Your task to perform on an android device: turn on showing notifications on the lock screen Image 0: 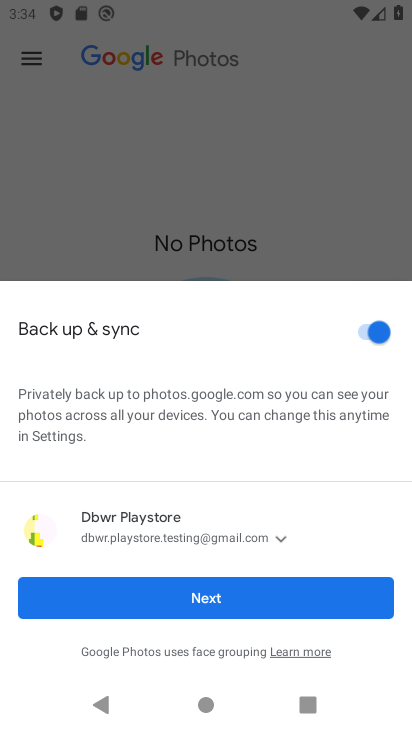
Step 0: press home button
Your task to perform on an android device: turn on showing notifications on the lock screen Image 1: 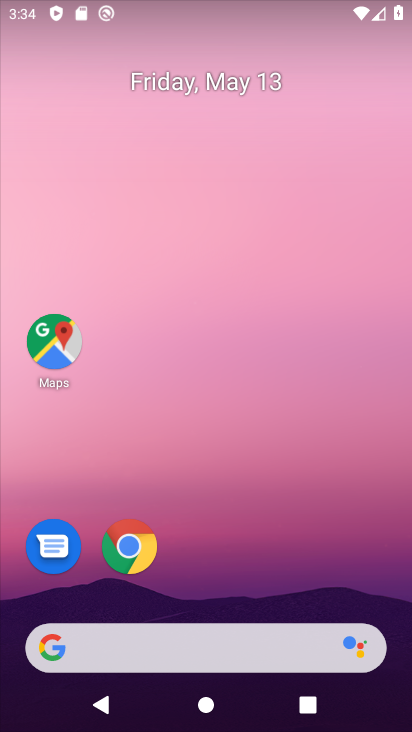
Step 1: drag from (219, 726) to (218, 85)
Your task to perform on an android device: turn on showing notifications on the lock screen Image 2: 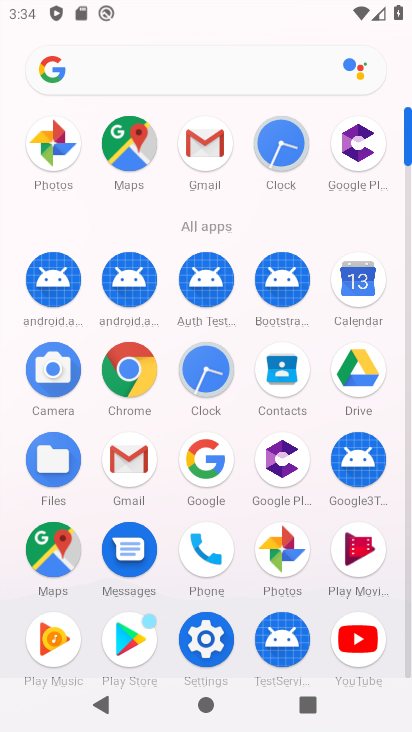
Step 2: click (209, 625)
Your task to perform on an android device: turn on showing notifications on the lock screen Image 3: 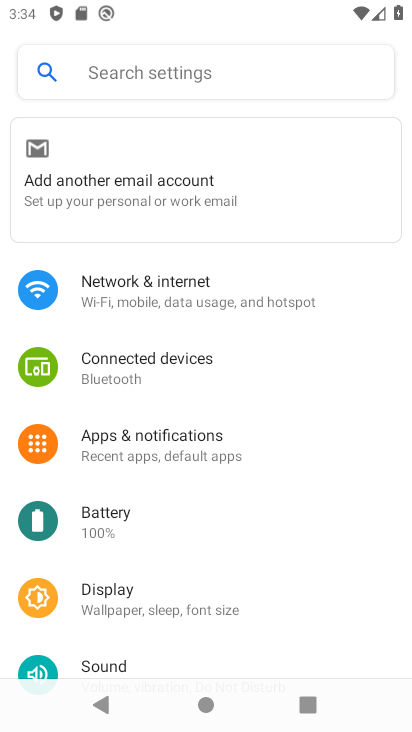
Step 3: click (136, 447)
Your task to perform on an android device: turn on showing notifications on the lock screen Image 4: 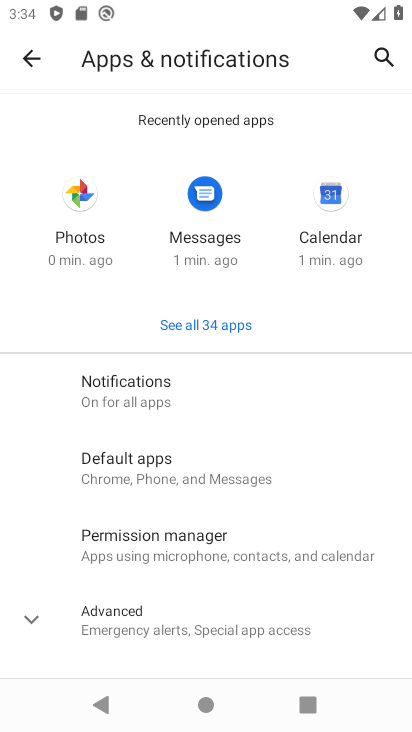
Step 4: click (125, 390)
Your task to perform on an android device: turn on showing notifications on the lock screen Image 5: 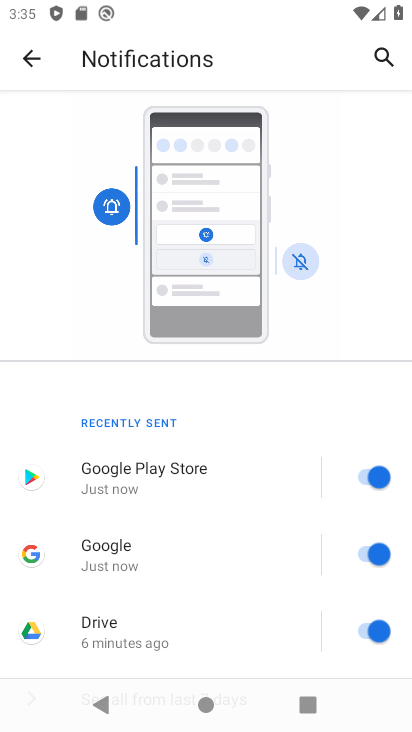
Step 5: drag from (216, 654) to (222, 300)
Your task to perform on an android device: turn on showing notifications on the lock screen Image 6: 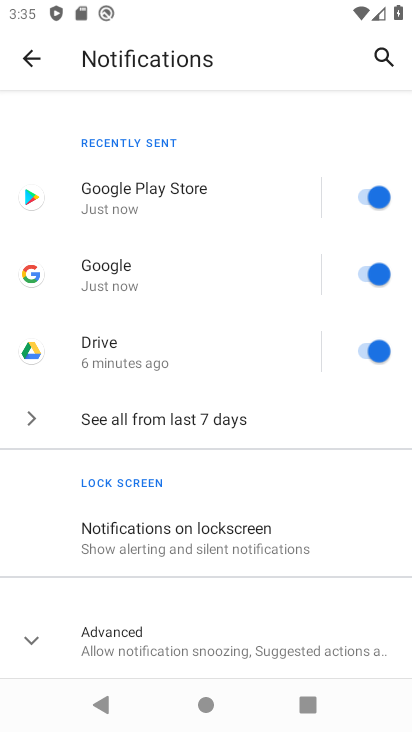
Step 6: click (123, 540)
Your task to perform on an android device: turn on showing notifications on the lock screen Image 7: 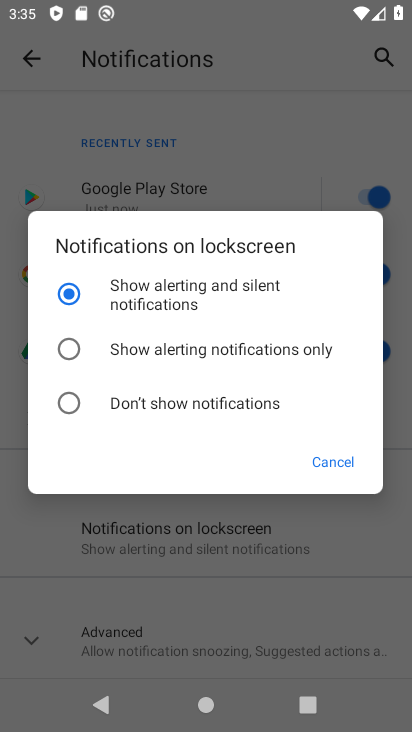
Step 7: click (347, 460)
Your task to perform on an android device: turn on showing notifications on the lock screen Image 8: 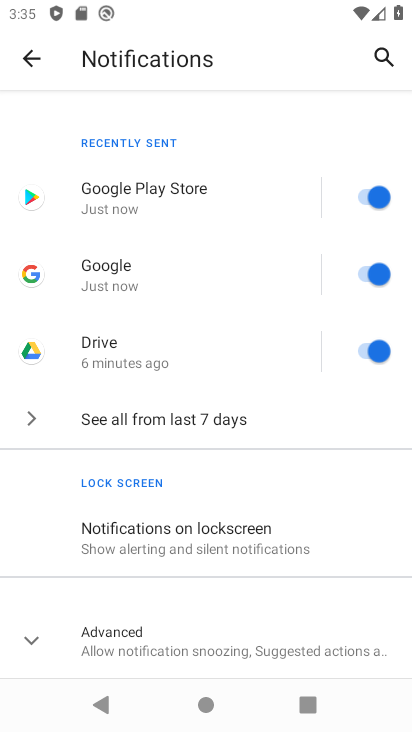
Step 8: task complete